Your task to perform on an android device: see sites visited before in the chrome app Image 0: 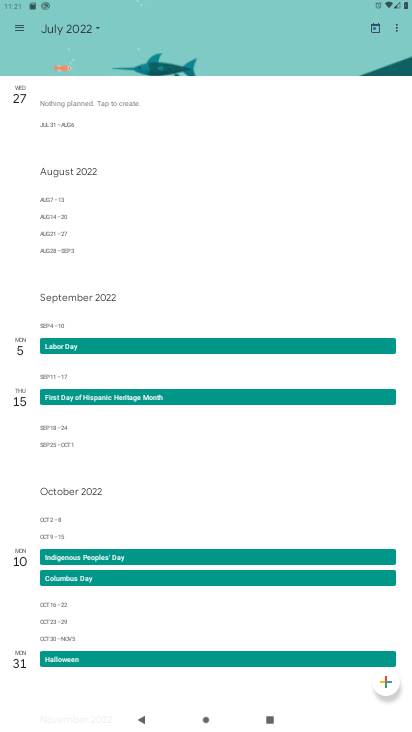
Step 0: press home button
Your task to perform on an android device: see sites visited before in the chrome app Image 1: 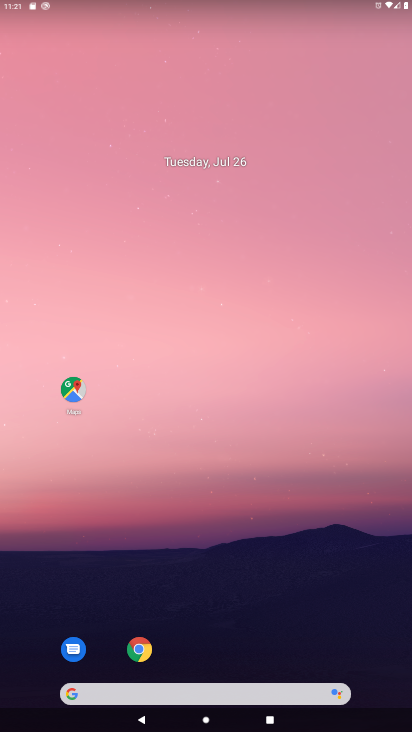
Step 1: click (149, 654)
Your task to perform on an android device: see sites visited before in the chrome app Image 2: 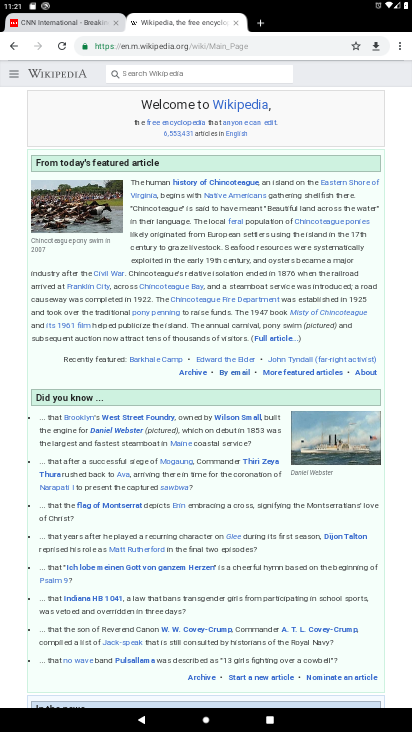
Step 2: click (399, 43)
Your task to perform on an android device: see sites visited before in the chrome app Image 3: 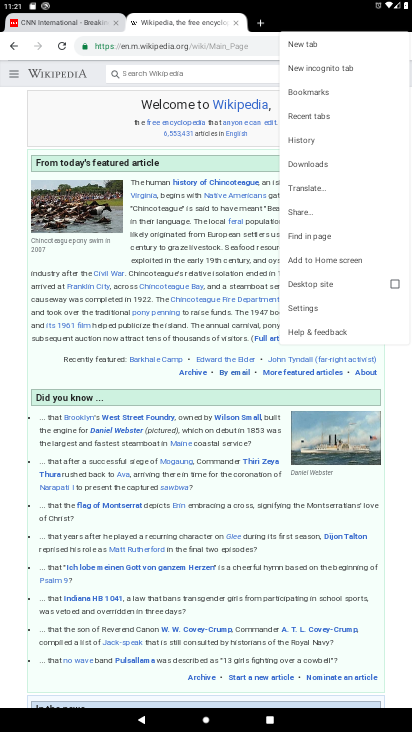
Step 3: click (312, 141)
Your task to perform on an android device: see sites visited before in the chrome app Image 4: 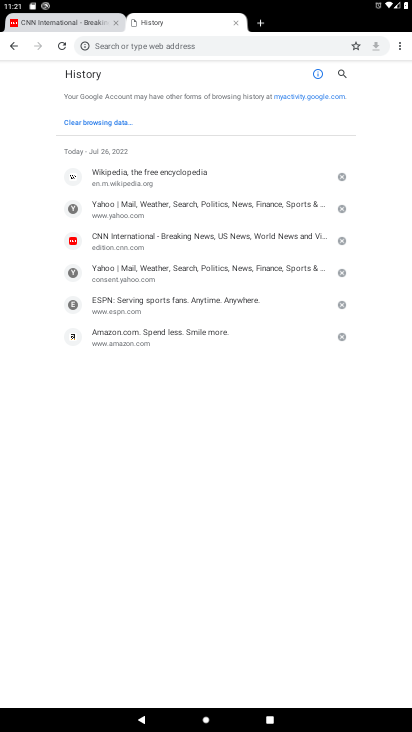
Step 4: task complete